Your task to perform on an android device: Open Google Maps Image 0: 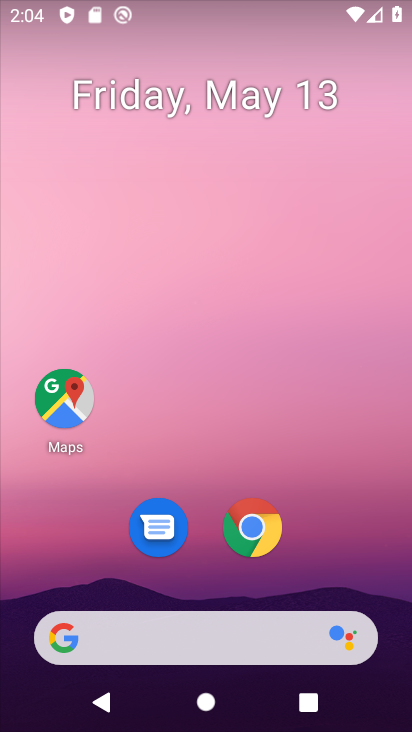
Step 0: drag from (340, 527) to (293, 163)
Your task to perform on an android device: Open Google Maps Image 1: 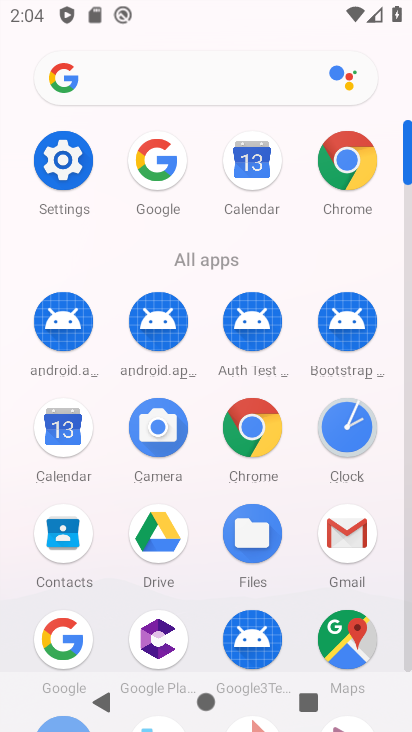
Step 1: click (345, 649)
Your task to perform on an android device: Open Google Maps Image 2: 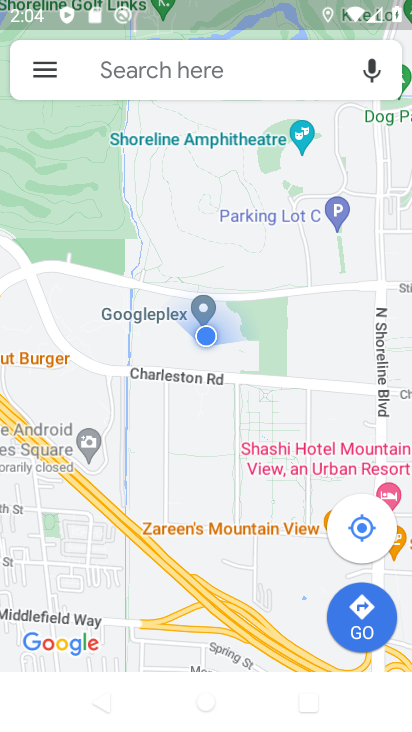
Step 2: task complete